Your task to perform on an android device: toggle wifi Image 0: 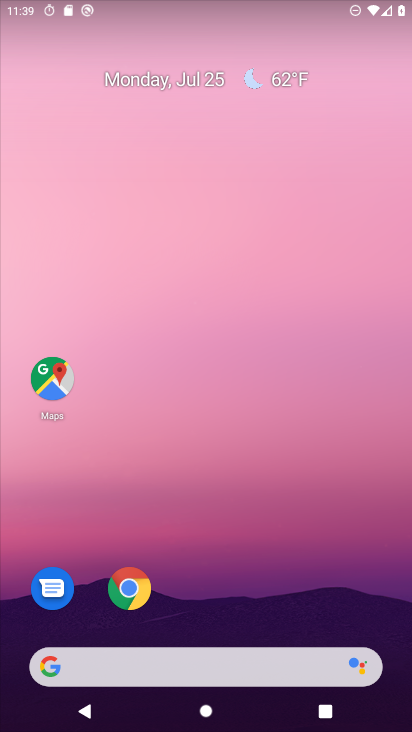
Step 0: drag from (188, 1) to (239, 381)
Your task to perform on an android device: toggle wifi Image 1: 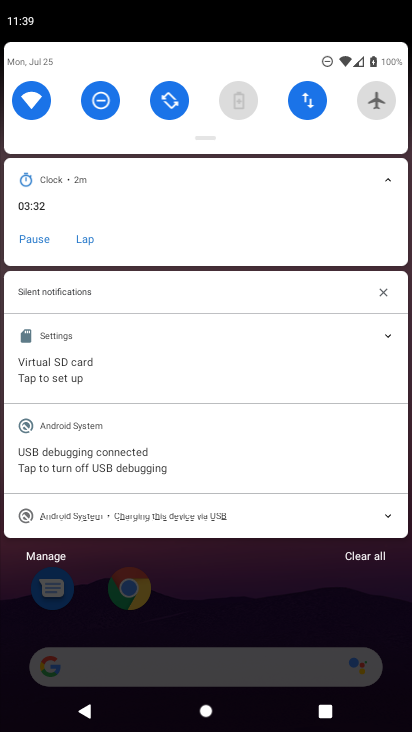
Step 1: click (34, 102)
Your task to perform on an android device: toggle wifi Image 2: 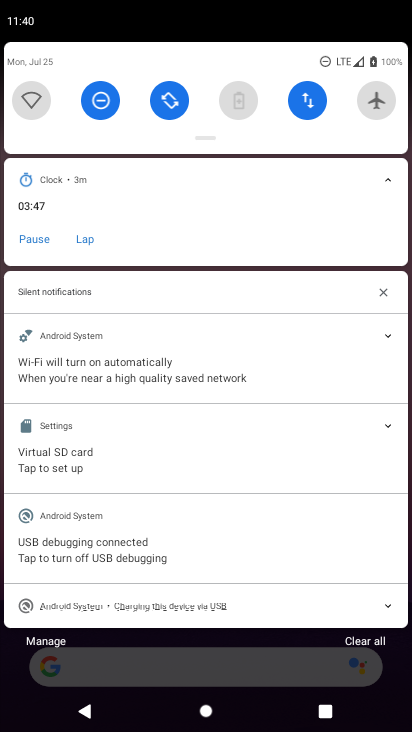
Step 2: task complete